Your task to perform on an android device: change the clock display to show seconds Image 0: 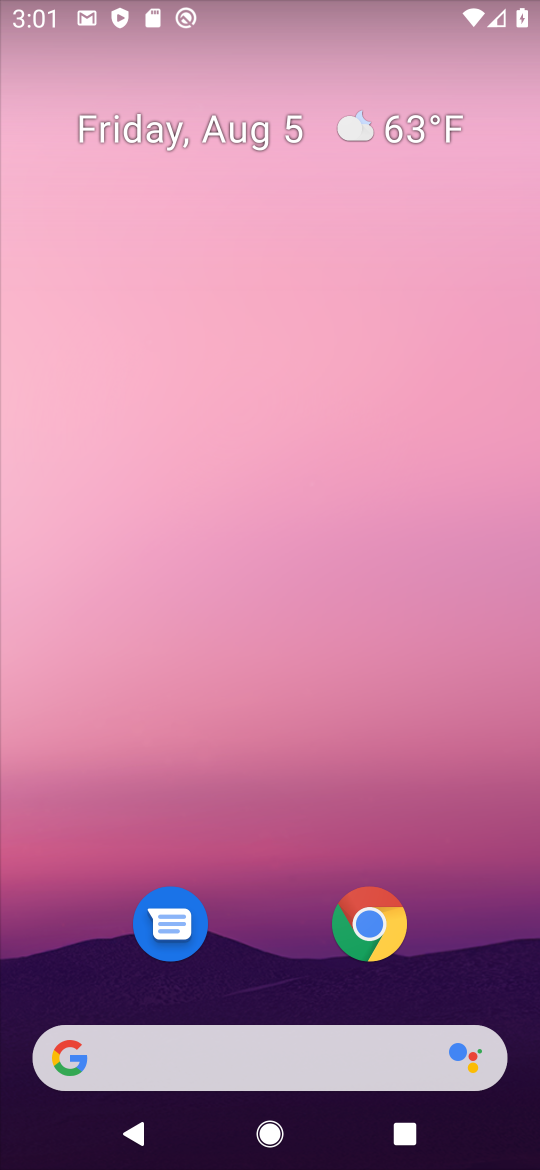
Step 0: drag from (262, 889) to (252, 129)
Your task to perform on an android device: change the clock display to show seconds Image 1: 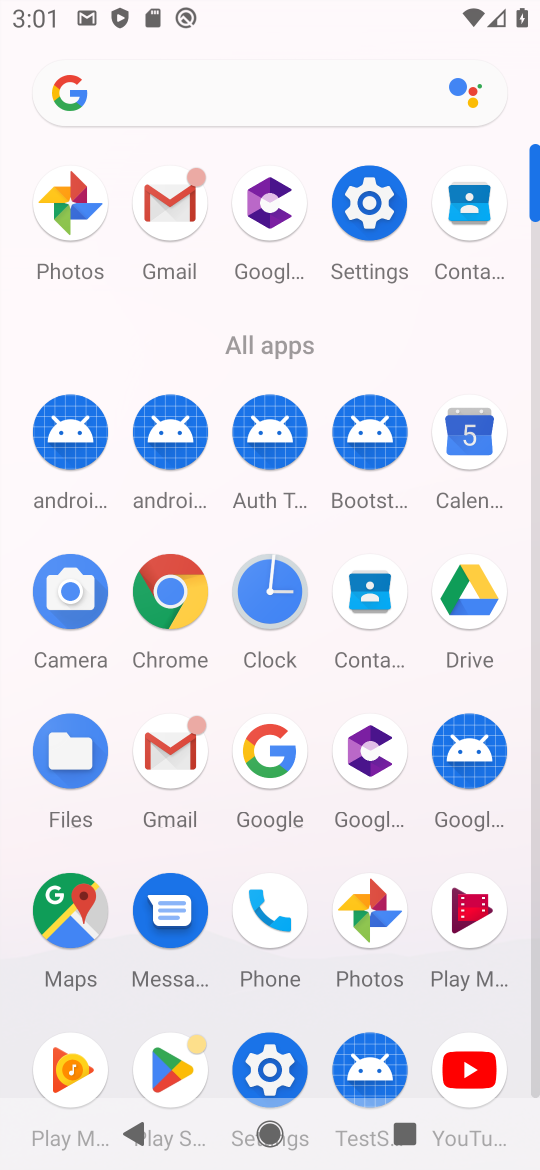
Step 1: click (273, 596)
Your task to perform on an android device: change the clock display to show seconds Image 2: 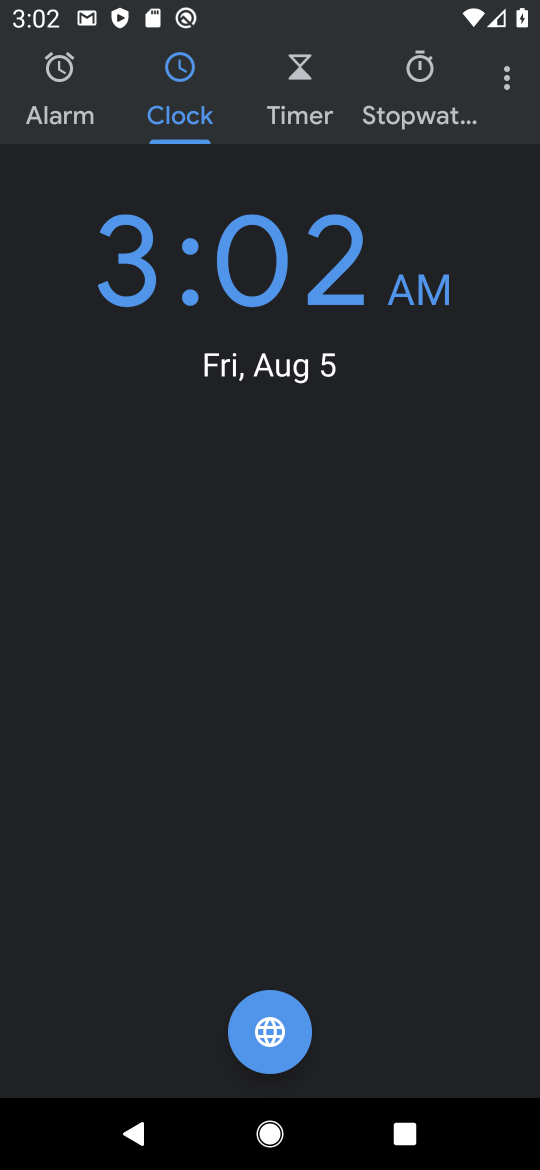
Step 2: click (512, 84)
Your task to perform on an android device: change the clock display to show seconds Image 3: 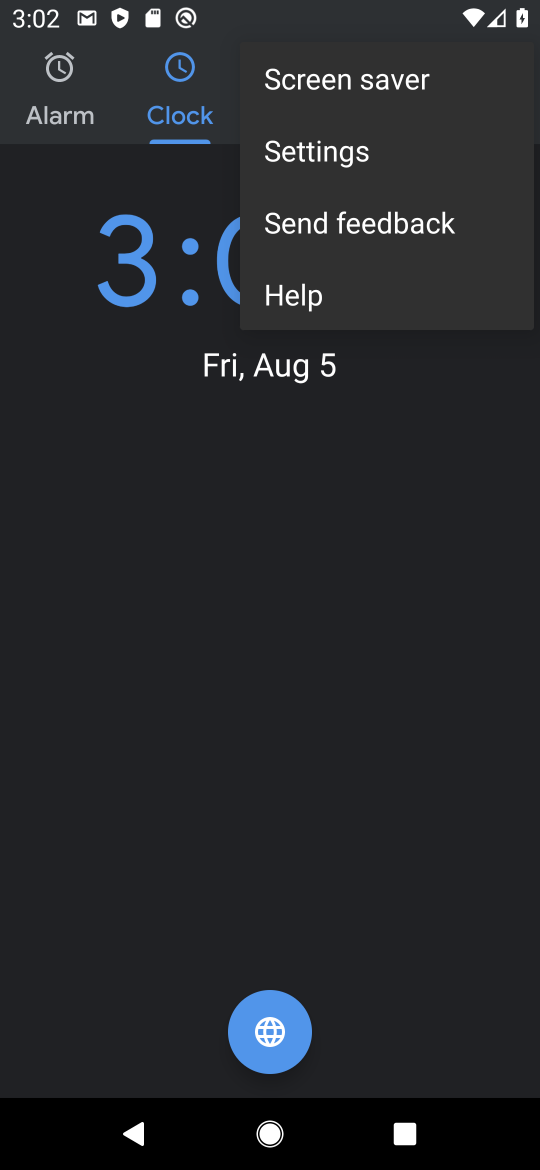
Step 3: click (376, 146)
Your task to perform on an android device: change the clock display to show seconds Image 4: 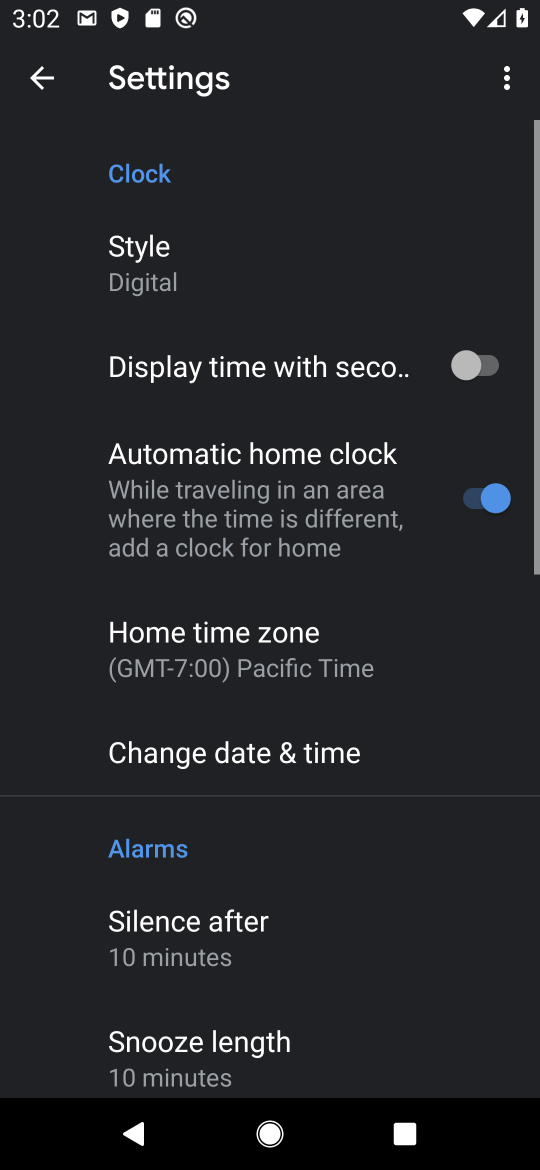
Step 4: click (471, 372)
Your task to perform on an android device: change the clock display to show seconds Image 5: 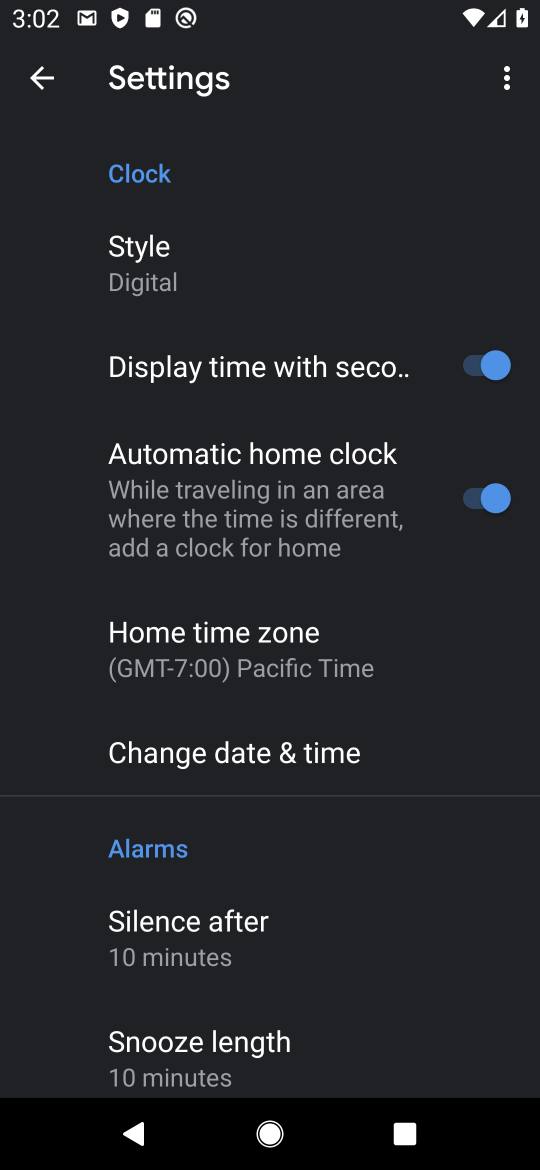
Step 5: task complete